Your task to perform on an android device: open chrome privacy settings Image 0: 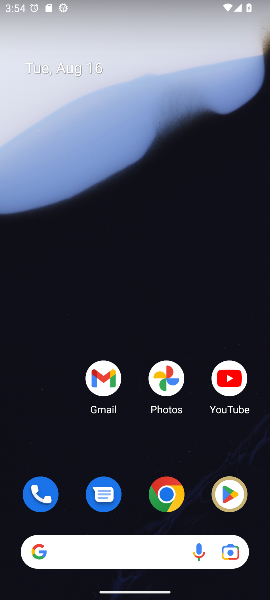
Step 0: click (179, 492)
Your task to perform on an android device: open chrome privacy settings Image 1: 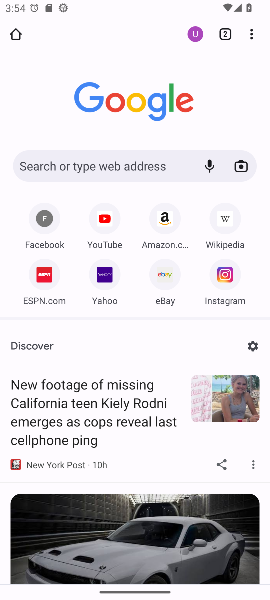
Step 1: click (246, 33)
Your task to perform on an android device: open chrome privacy settings Image 2: 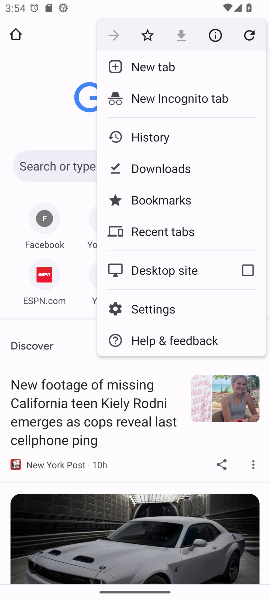
Step 2: click (144, 313)
Your task to perform on an android device: open chrome privacy settings Image 3: 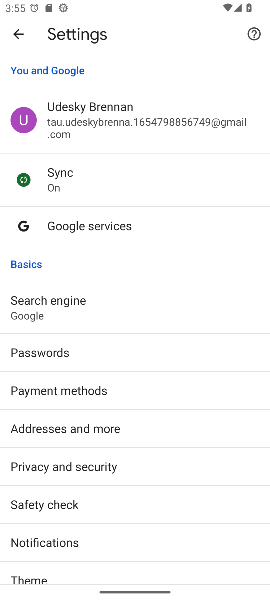
Step 3: drag from (91, 524) to (91, 176)
Your task to perform on an android device: open chrome privacy settings Image 4: 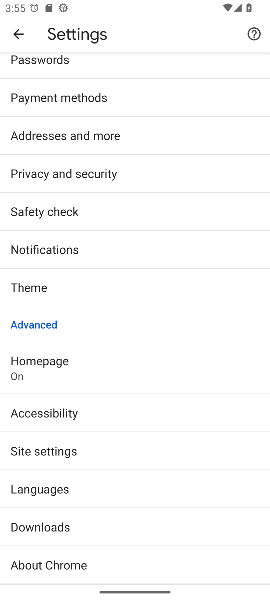
Step 4: click (67, 180)
Your task to perform on an android device: open chrome privacy settings Image 5: 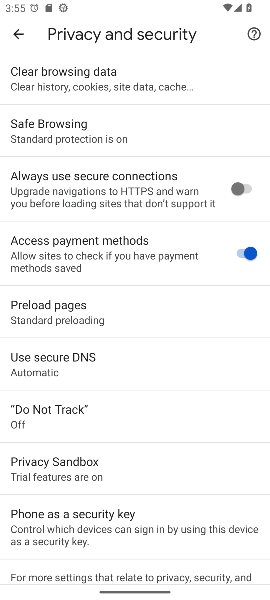
Step 5: task complete